Your task to perform on an android device: Open the phone app and click the voicemail tab. Image 0: 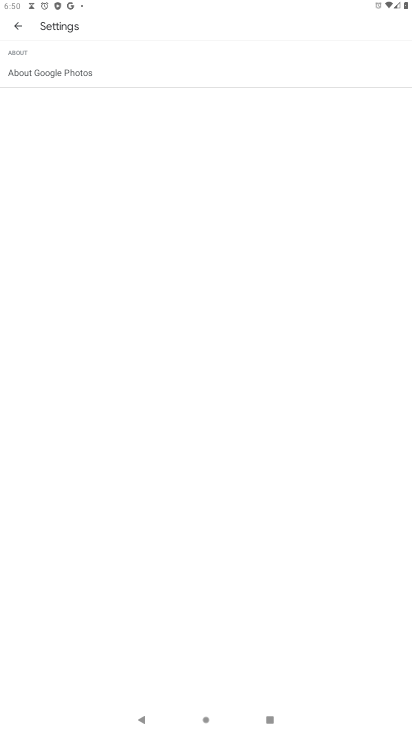
Step 0: press home button
Your task to perform on an android device: Open the phone app and click the voicemail tab. Image 1: 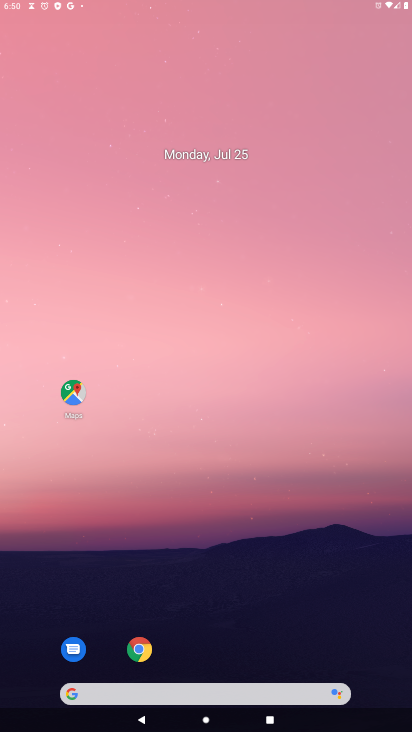
Step 1: drag from (220, 691) to (265, 80)
Your task to perform on an android device: Open the phone app and click the voicemail tab. Image 2: 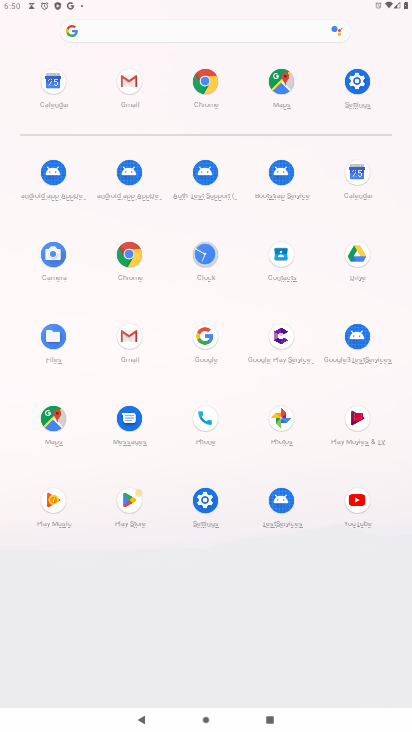
Step 2: click (201, 423)
Your task to perform on an android device: Open the phone app and click the voicemail tab. Image 3: 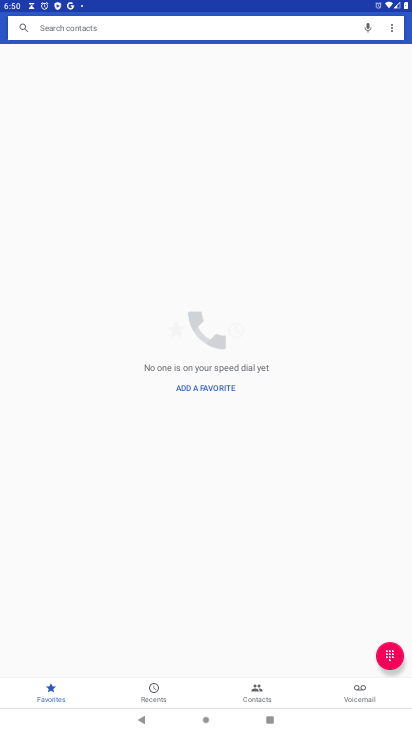
Step 3: click (372, 682)
Your task to perform on an android device: Open the phone app and click the voicemail tab. Image 4: 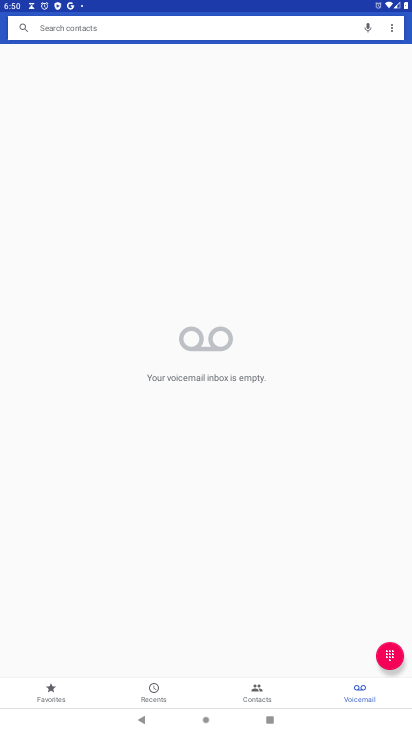
Step 4: task complete